Your task to perform on an android device: Open wifi settings Image 0: 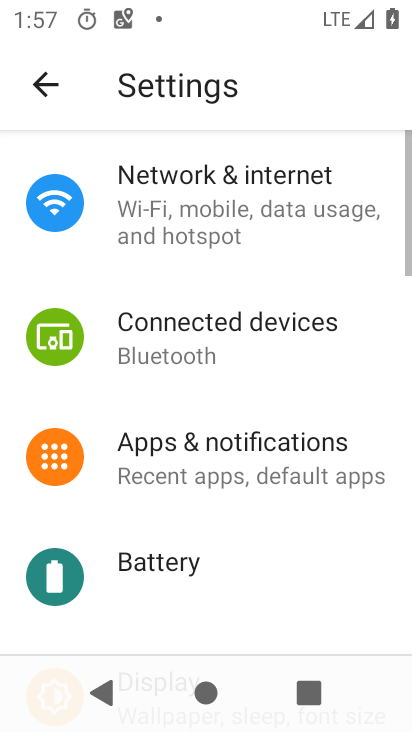
Step 0: drag from (190, 550) to (222, 22)
Your task to perform on an android device: Open wifi settings Image 1: 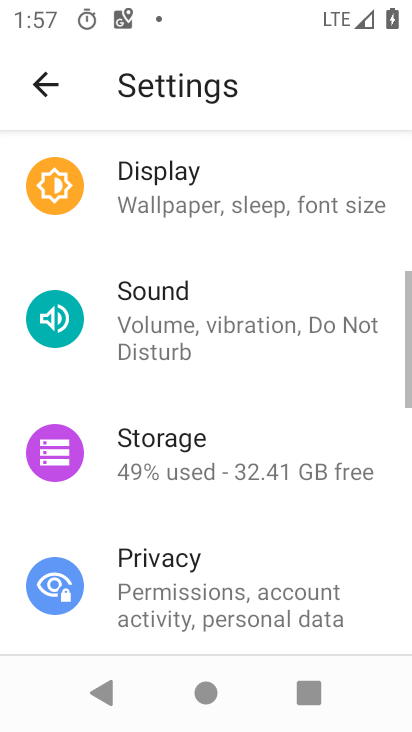
Step 1: drag from (219, 158) to (291, 686)
Your task to perform on an android device: Open wifi settings Image 2: 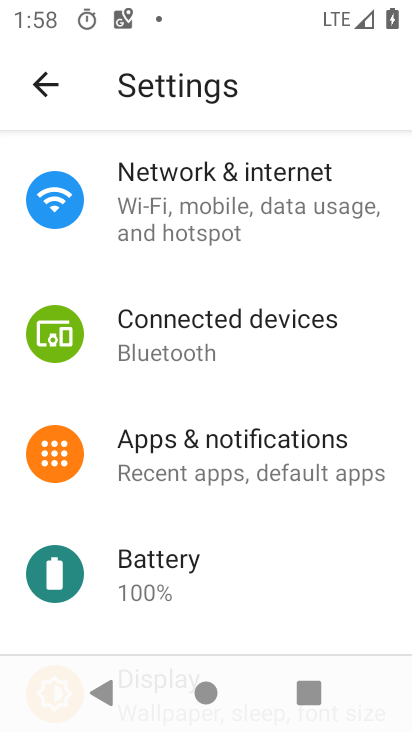
Step 2: drag from (245, 208) to (307, 612)
Your task to perform on an android device: Open wifi settings Image 3: 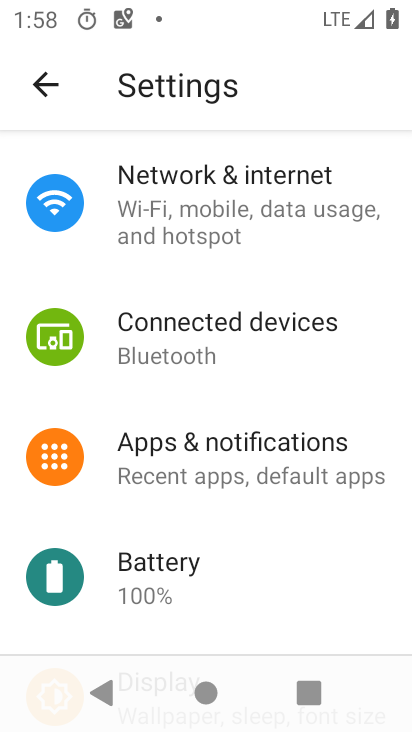
Step 3: click (196, 175)
Your task to perform on an android device: Open wifi settings Image 4: 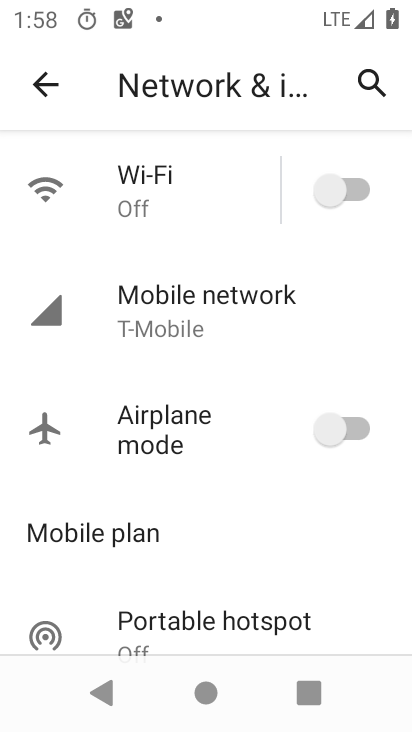
Step 4: click (211, 206)
Your task to perform on an android device: Open wifi settings Image 5: 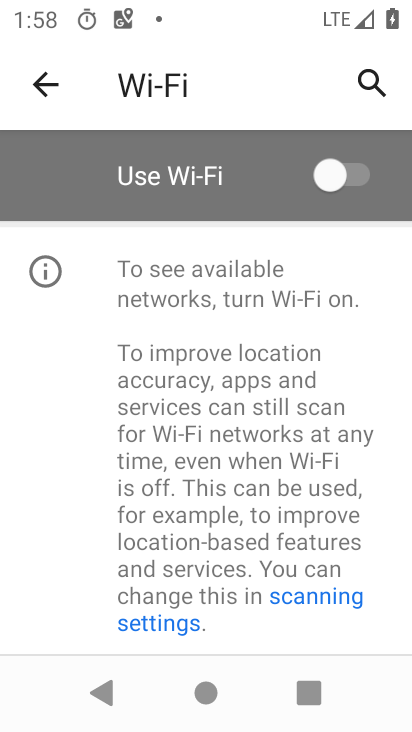
Step 5: task complete